Your task to perform on an android device: Open calendar and show me the first week of next month Image 0: 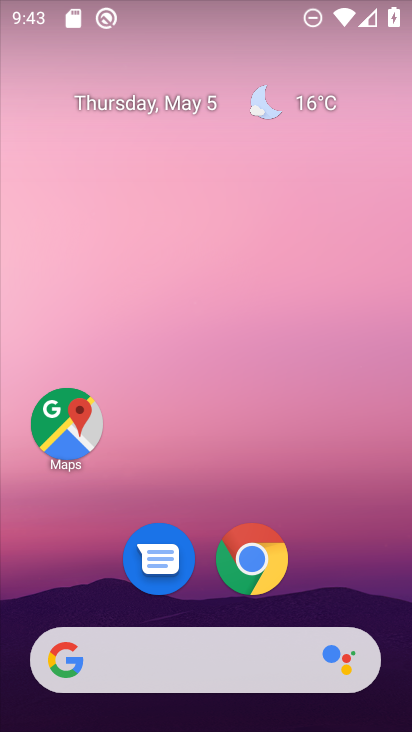
Step 0: drag from (352, 606) to (371, 0)
Your task to perform on an android device: Open calendar and show me the first week of next month Image 1: 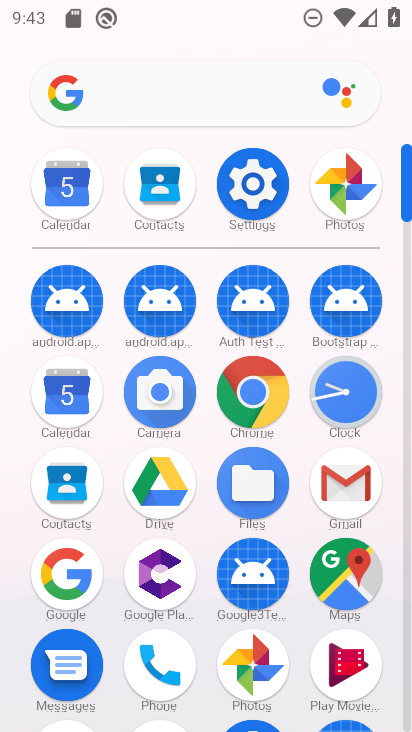
Step 1: click (61, 388)
Your task to perform on an android device: Open calendar and show me the first week of next month Image 2: 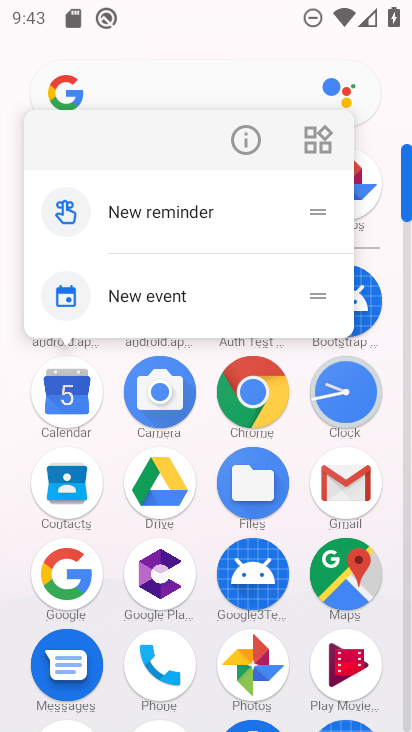
Step 2: click (67, 367)
Your task to perform on an android device: Open calendar and show me the first week of next month Image 3: 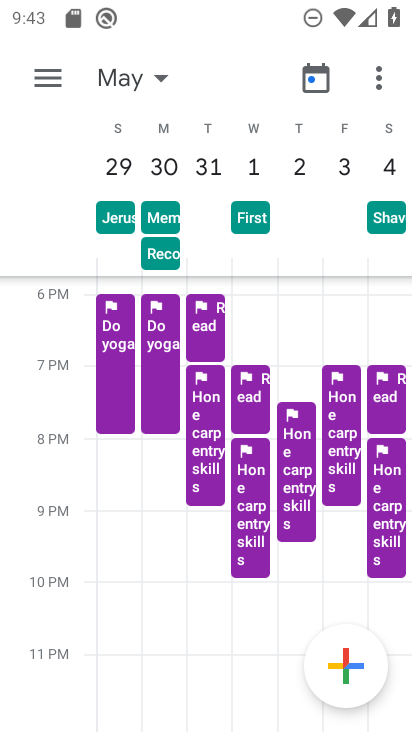
Step 3: click (162, 84)
Your task to perform on an android device: Open calendar and show me the first week of next month Image 4: 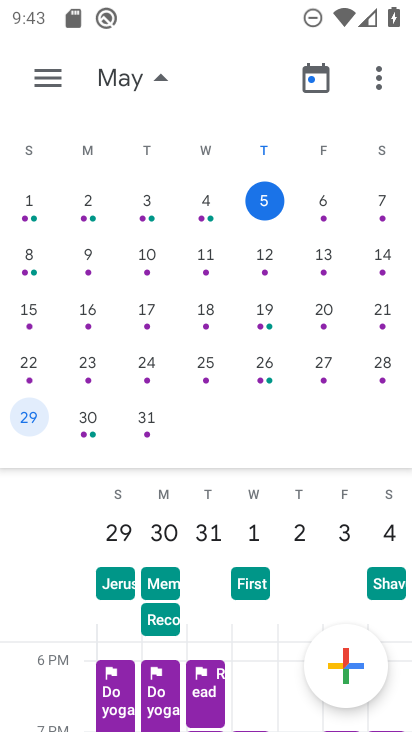
Step 4: drag from (336, 292) to (53, 280)
Your task to perform on an android device: Open calendar and show me the first week of next month Image 5: 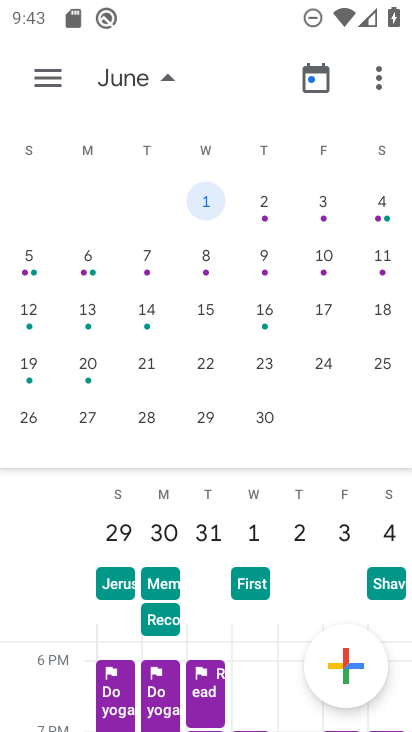
Step 5: drag from (277, 645) to (229, 17)
Your task to perform on an android device: Open calendar and show me the first week of next month Image 6: 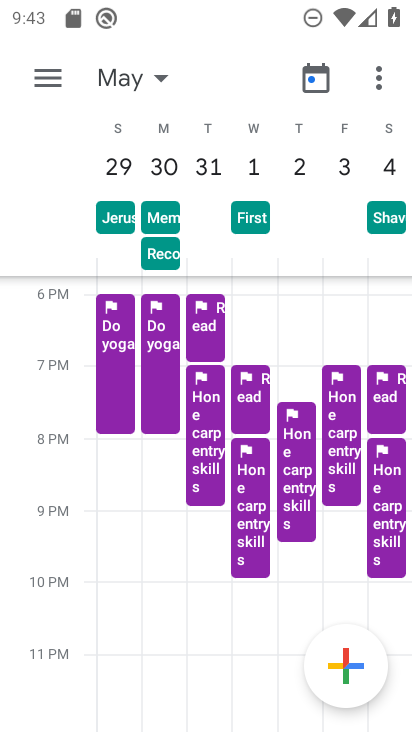
Step 6: click (162, 82)
Your task to perform on an android device: Open calendar and show me the first week of next month Image 7: 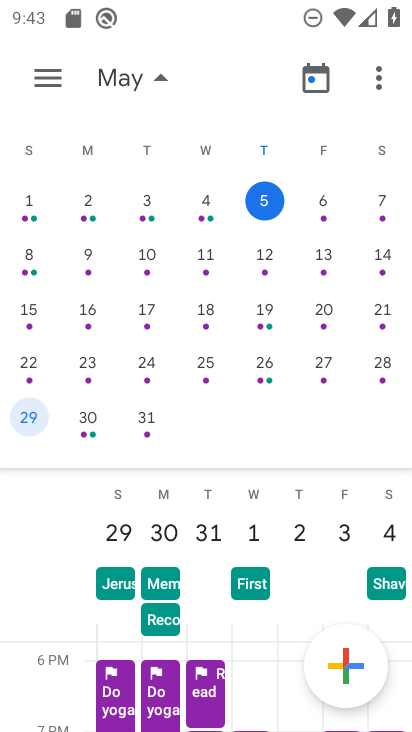
Step 7: drag from (261, 296) to (2, 9)
Your task to perform on an android device: Open calendar and show me the first week of next month Image 8: 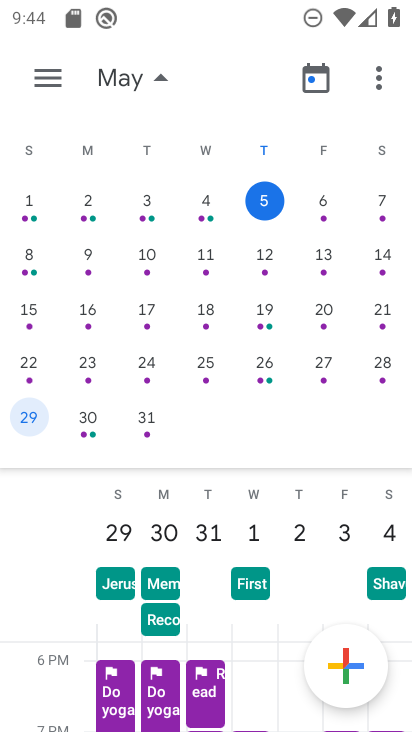
Step 8: click (156, 78)
Your task to perform on an android device: Open calendar and show me the first week of next month Image 9: 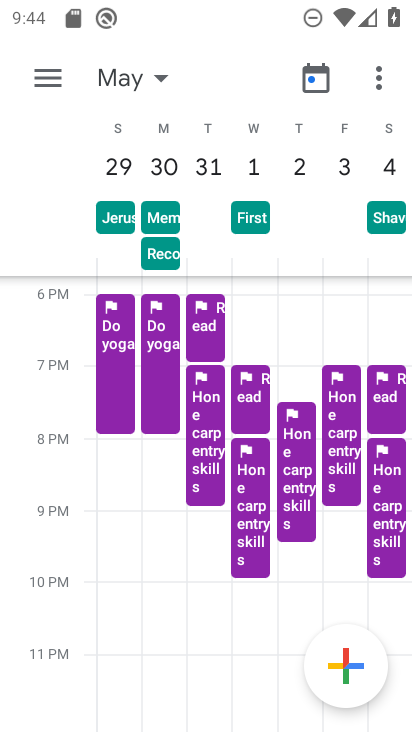
Step 9: click (162, 79)
Your task to perform on an android device: Open calendar and show me the first week of next month Image 10: 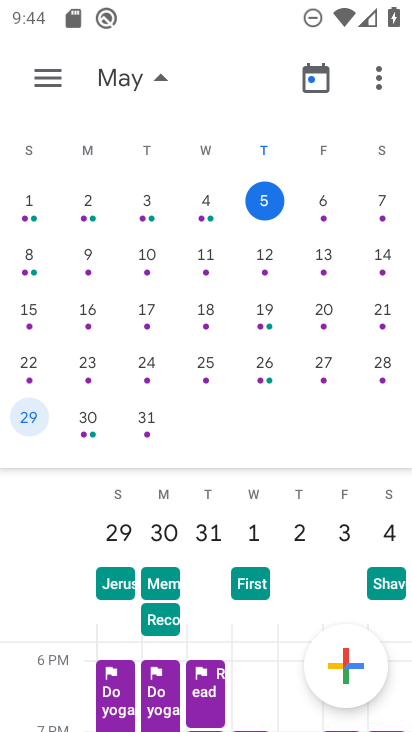
Step 10: drag from (324, 289) to (27, 313)
Your task to perform on an android device: Open calendar and show me the first week of next month Image 11: 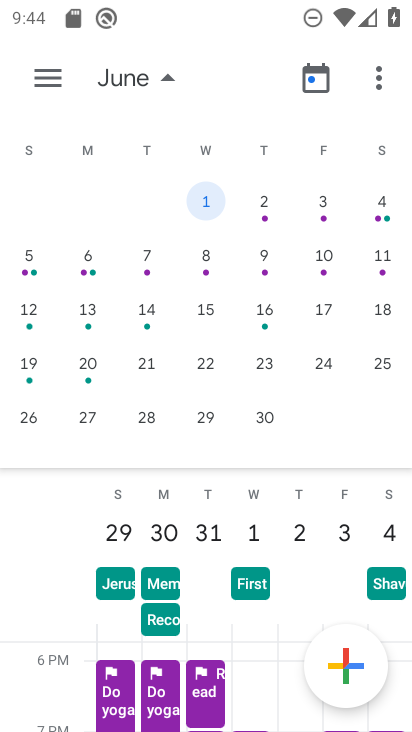
Step 11: click (49, 81)
Your task to perform on an android device: Open calendar and show me the first week of next month Image 12: 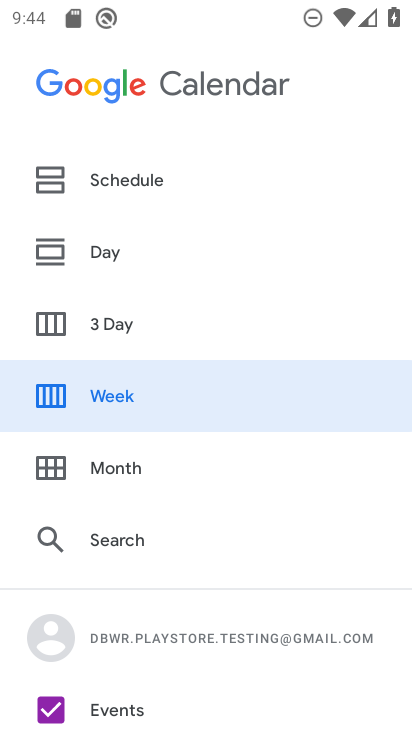
Step 12: click (106, 410)
Your task to perform on an android device: Open calendar and show me the first week of next month Image 13: 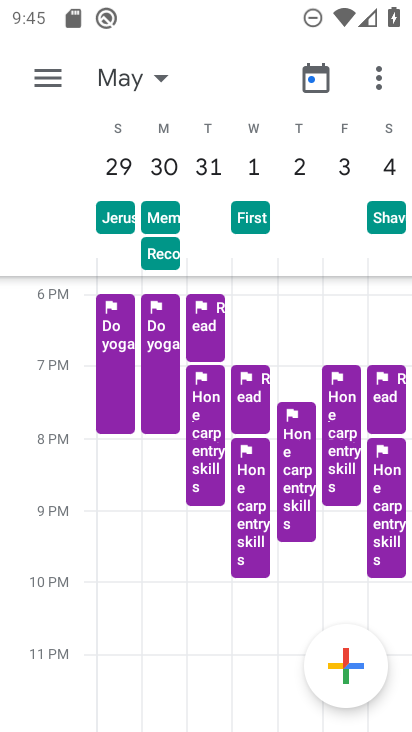
Step 13: task complete